Your task to perform on an android device: Open battery settings Image 0: 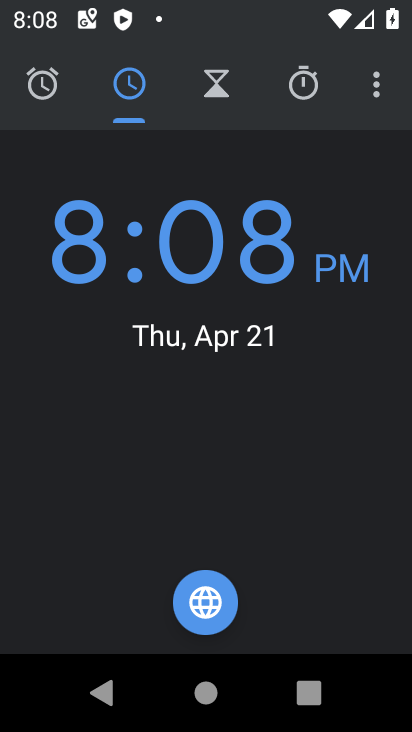
Step 0: press home button
Your task to perform on an android device: Open battery settings Image 1: 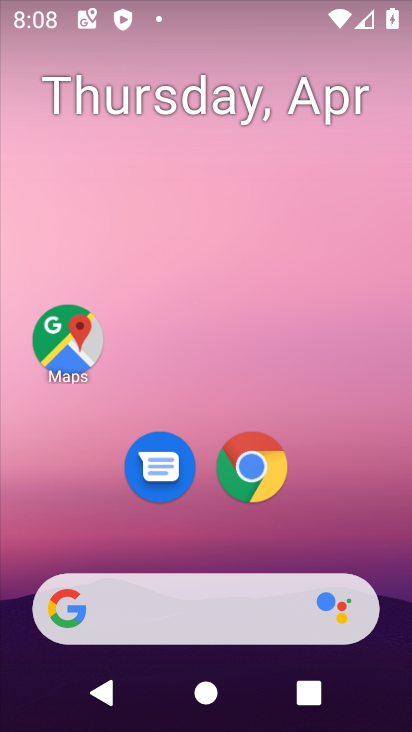
Step 1: drag from (216, 616) to (202, 7)
Your task to perform on an android device: Open battery settings Image 2: 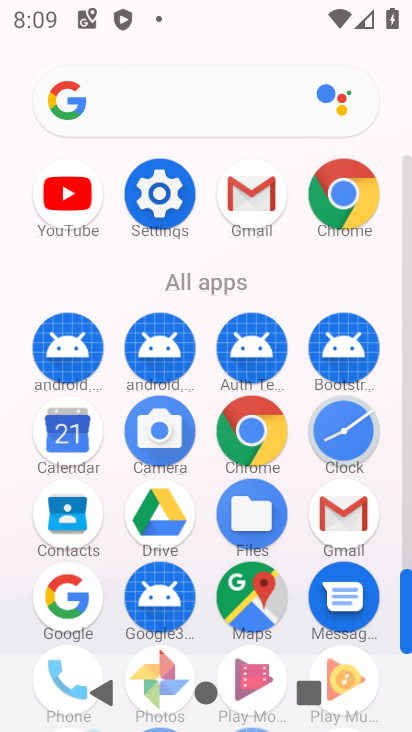
Step 2: click (145, 200)
Your task to perform on an android device: Open battery settings Image 3: 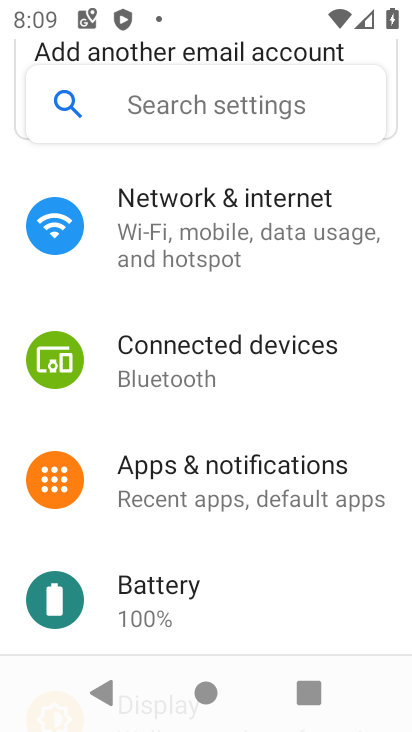
Step 3: click (154, 591)
Your task to perform on an android device: Open battery settings Image 4: 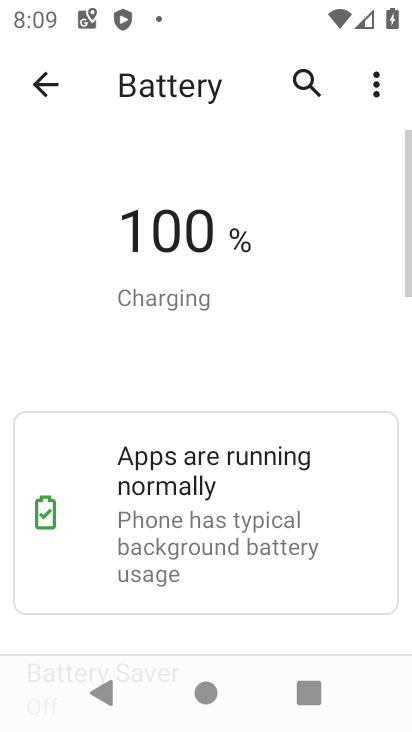
Step 4: task complete